Your task to perform on an android device: Open the map Image 0: 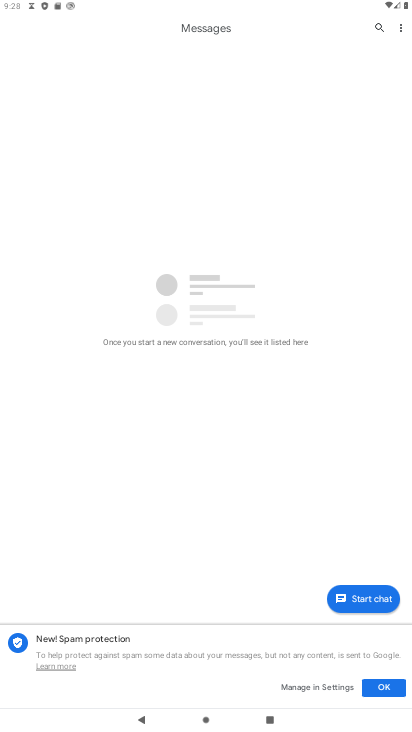
Step 0: press home button
Your task to perform on an android device: Open the map Image 1: 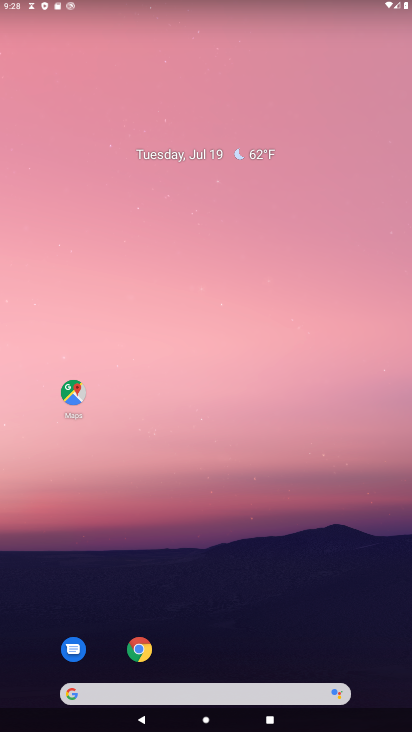
Step 1: drag from (250, 676) to (408, 105)
Your task to perform on an android device: Open the map Image 2: 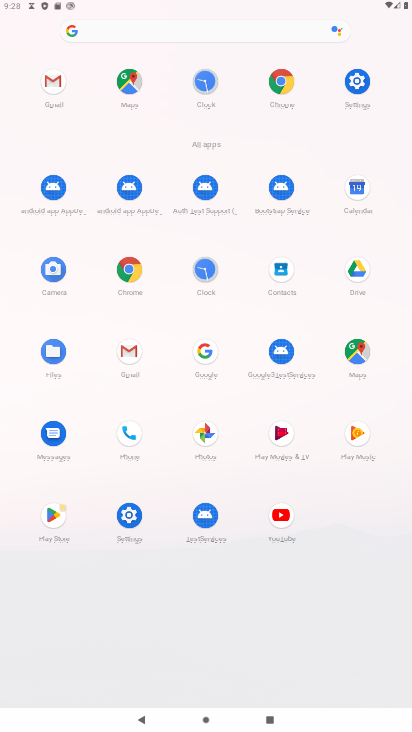
Step 2: click (362, 356)
Your task to perform on an android device: Open the map Image 3: 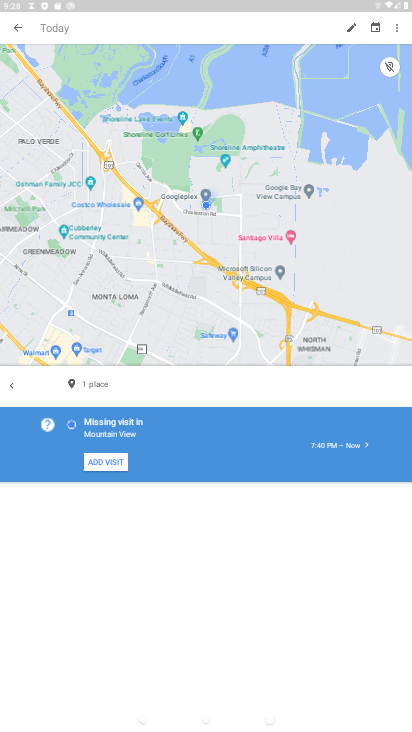
Step 3: press back button
Your task to perform on an android device: Open the map Image 4: 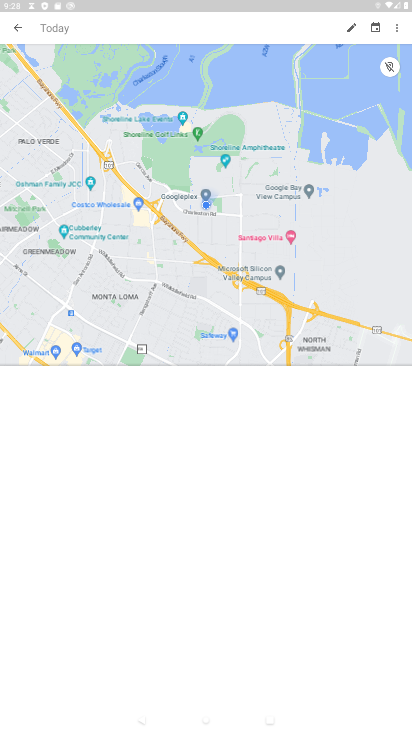
Step 4: press back button
Your task to perform on an android device: Open the map Image 5: 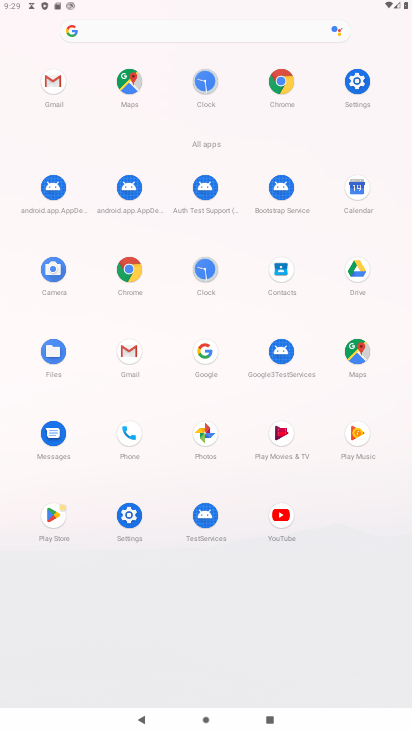
Step 5: click (352, 344)
Your task to perform on an android device: Open the map Image 6: 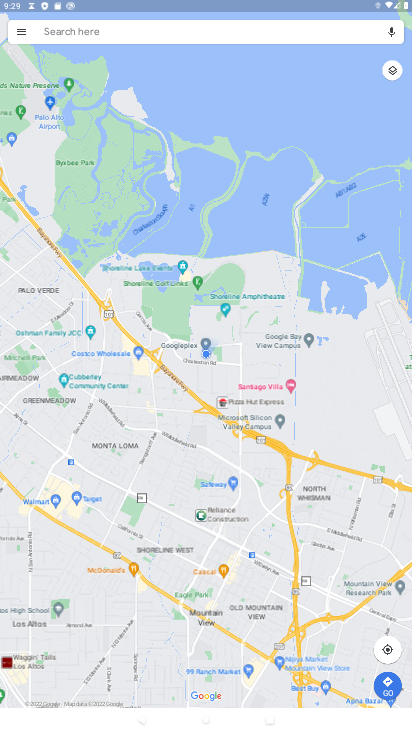
Step 6: task complete